Your task to perform on an android device: Go to internet settings Image 0: 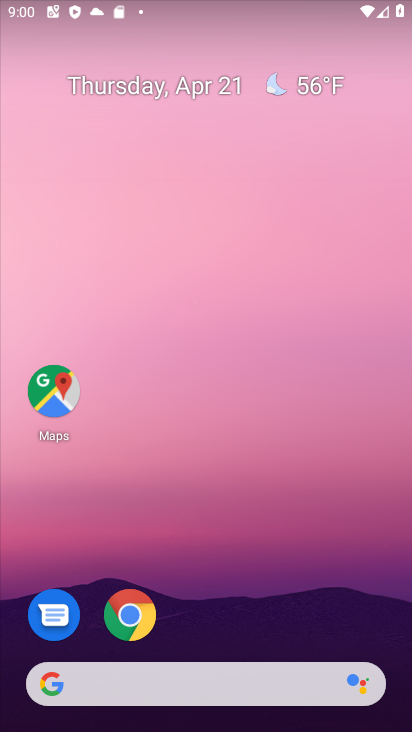
Step 0: click (210, 208)
Your task to perform on an android device: Go to internet settings Image 1: 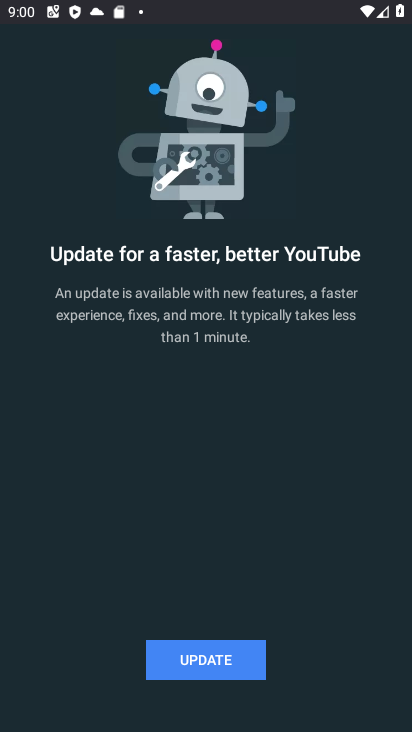
Step 1: press back button
Your task to perform on an android device: Go to internet settings Image 2: 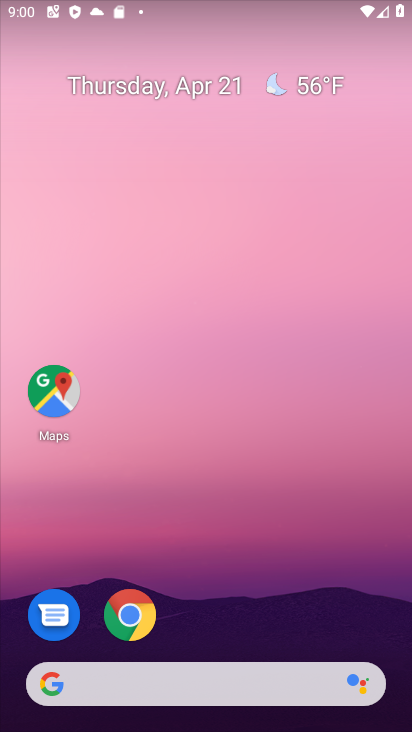
Step 2: drag from (277, 561) to (205, 165)
Your task to perform on an android device: Go to internet settings Image 3: 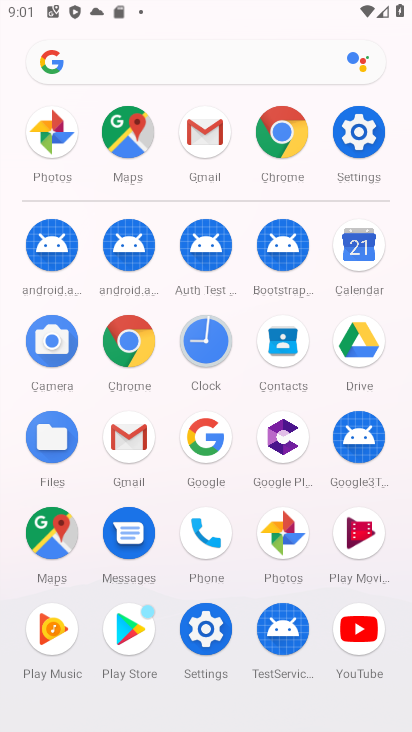
Step 3: click (203, 639)
Your task to perform on an android device: Go to internet settings Image 4: 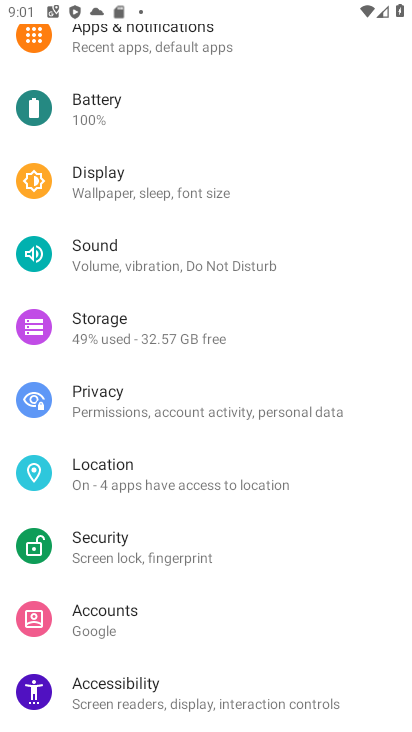
Step 4: drag from (195, 291) to (186, 646)
Your task to perform on an android device: Go to internet settings Image 5: 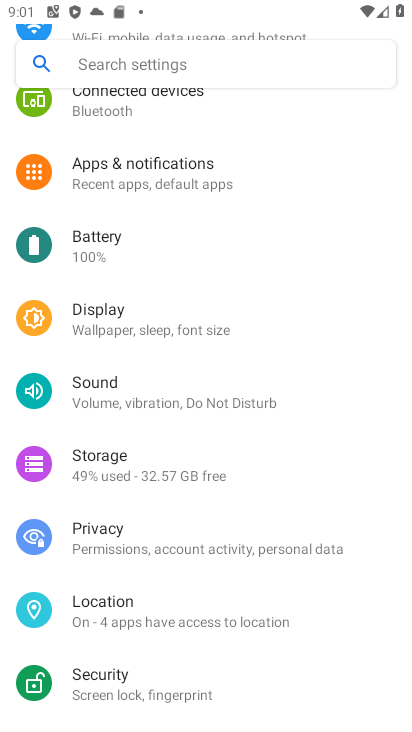
Step 5: drag from (238, 440) to (243, 669)
Your task to perform on an android device: Go to internet settings Image 6: 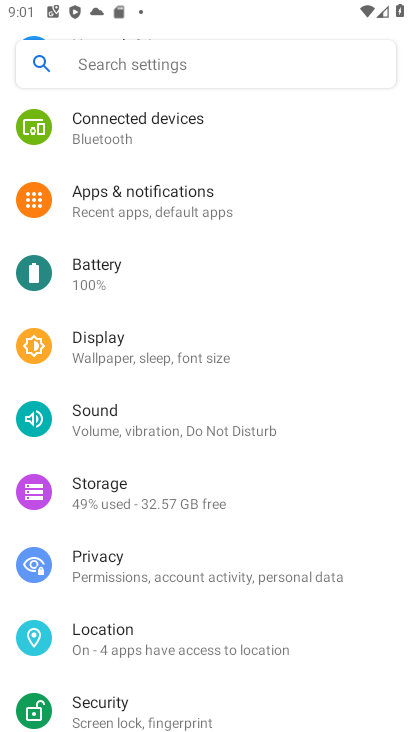
Step 6: drag from (237, 309) to (233, 465)
Your task to perform on an android device: Go to internet settings Image 7: 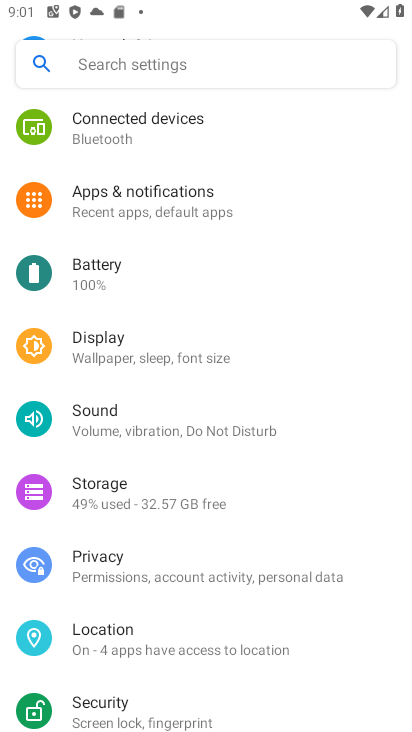
Step 7: drag from (257, 227) to (268, 490)
Your task to perform on an android device: Go to internet settings Image 8: 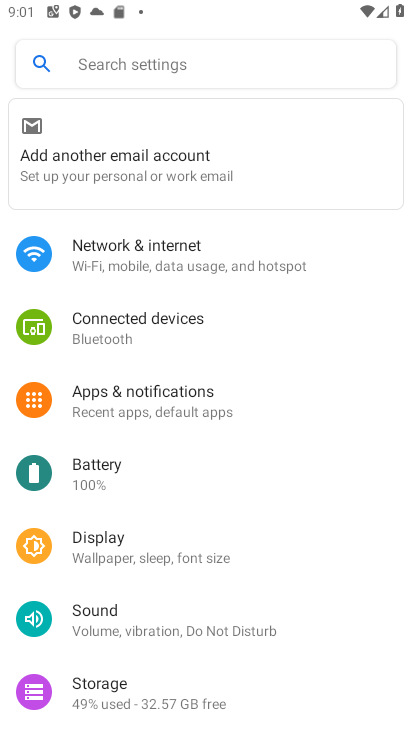
Step 8: click (153, 258)
Your task to perform on an android device: Go to internet settings Image 9: 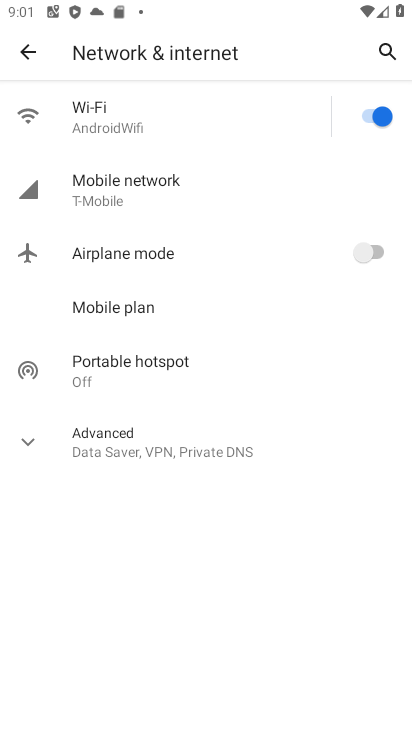
Step 9: task complete